Your task to perform on an android device: turn smart compose on in the gmail app Image 0: 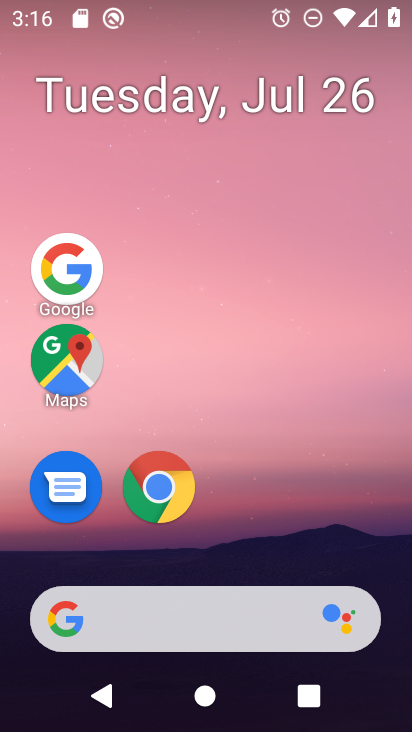
Step 0: drag from (170, 631) to (129, 258)
Your task to perform on an android device: turn smart compose on in the gmail app Image 1: 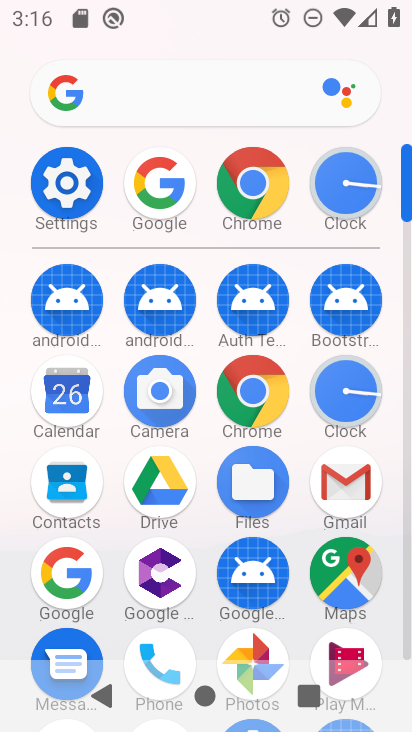
Step 1: click (344, 474)
Your task to perform on an android device: turn smart compose on in the gmail app Image 2: 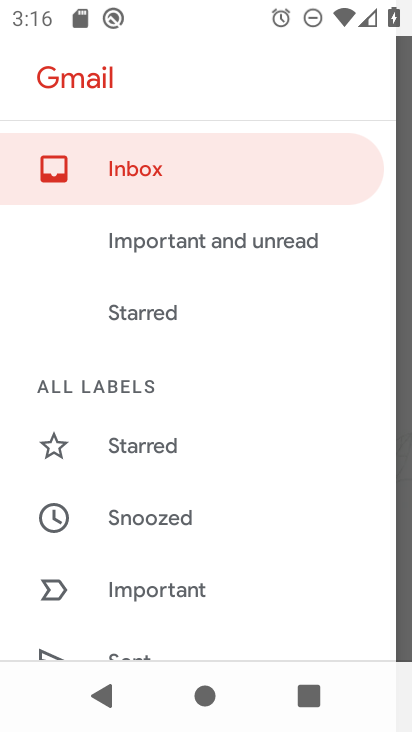
Step 2: drag from (174, 568) to (400, 175)
Your task to perform on an android device: turn smart compose on in the gmail app Image 3: 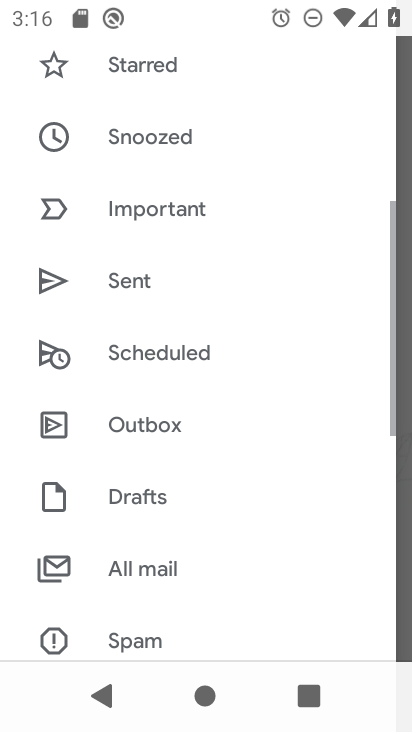
Step 3: drag from (174, 558) to (190, 116)
Your task to perform on an android device: turn smart compose on in the gmail app Image 4: 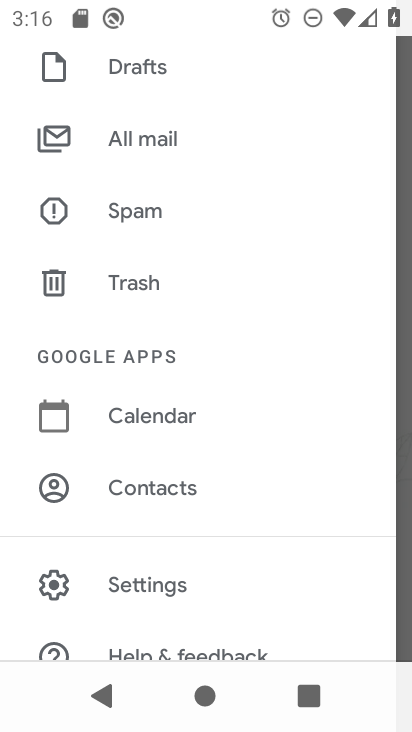
Step 4: click (172, 587)
Your task to perform on an android device: turn smart compose on in the gmail app Image 5: 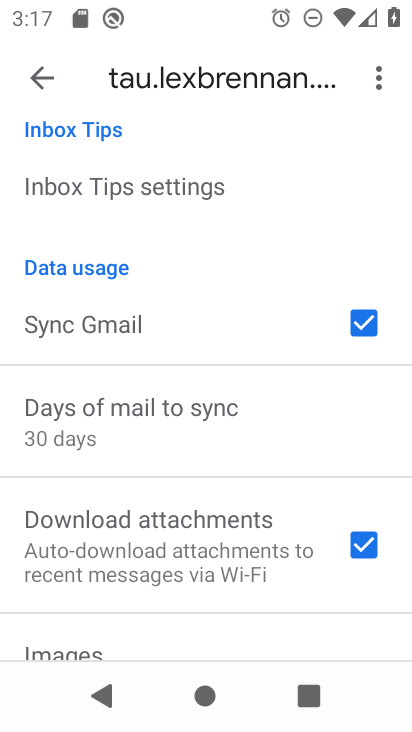
Step 5: drag from (85, 524) to (163, 159)
Your task to perform on an android device: turn smart compose on in the gmail app Image 6: 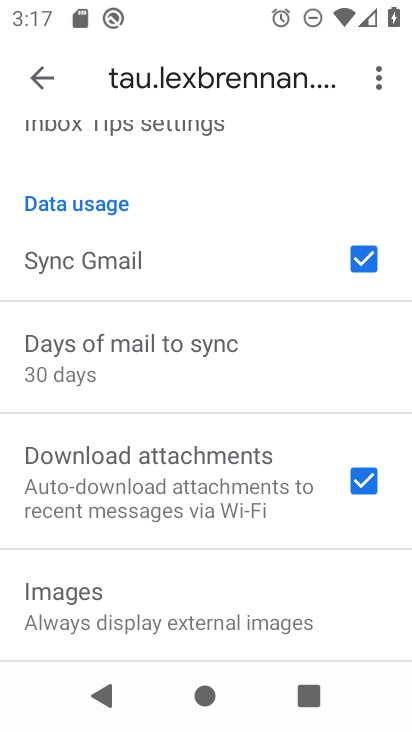
Step 6: drag from (126, 475) to (152, 169)
Your task to perform on an android device: turn smart compose on in the gmail app Image 7: 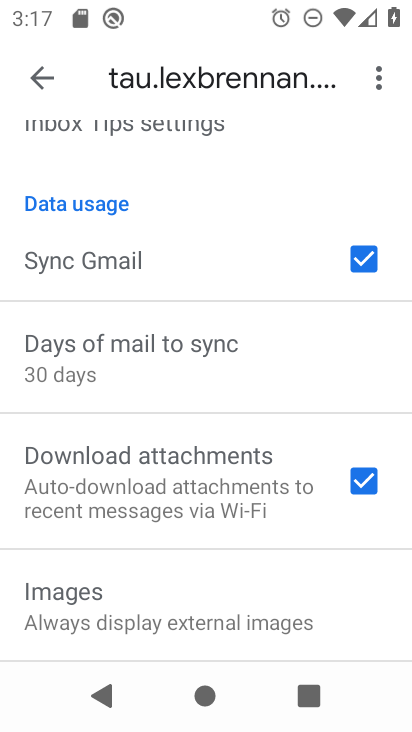
Step 7: drag from (138, 346) to (121, 629)
Your task to perform on an android device: turn smart compose on in the gmail app Image 8: 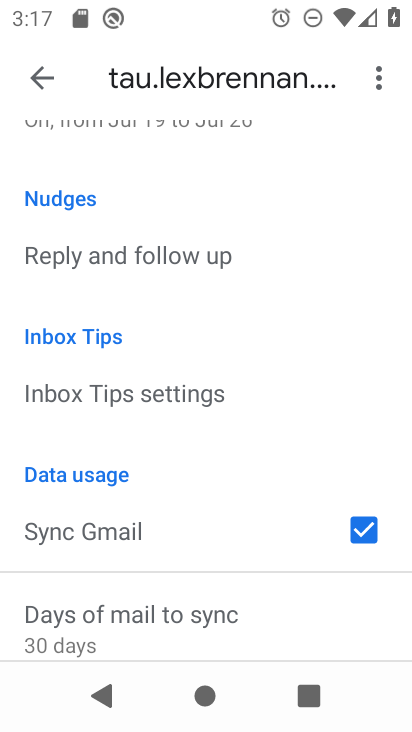
Step 8: drag from (167, 262) to (166, 575)
Your task to perform on an android device: turn smart compose on in the gmail app Image 9: 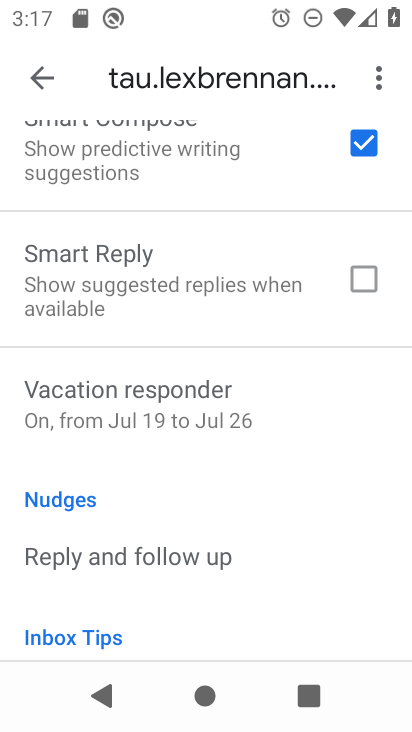
Step 9: click (153, 422)
Your task to perform on an android device: turn smart compose on in the gmail app Image 10: 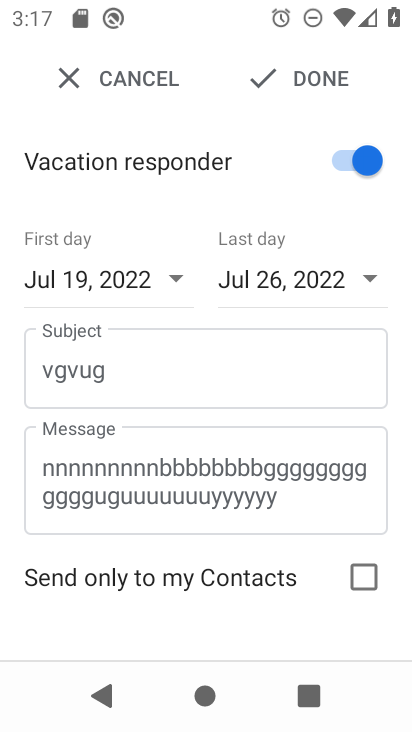
Step 10: task complete